Your task to perform on an android device: Is it going to rain tomorrow? Image 0: 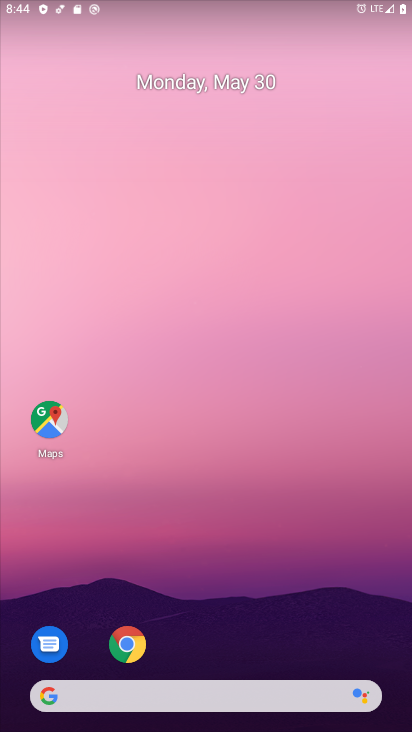
Step 0: drag from (3, 188) to (375, 216)
Your task to perform on an android device: Is it going to rain tomorrow? Image 1: 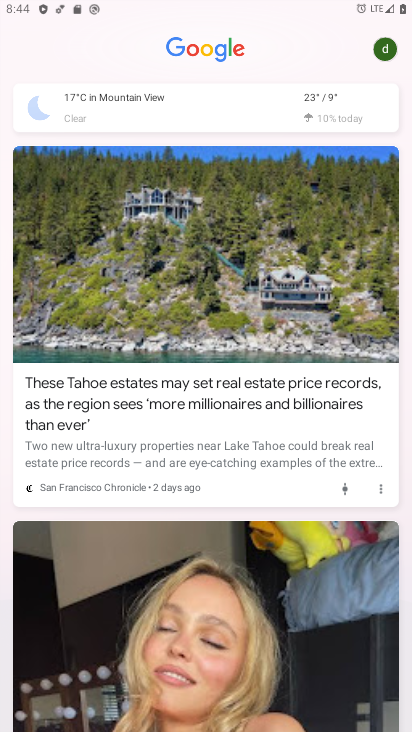
Step 1: drag from (312, 478) to (284, 232)
Your task to perform on an android device: Is it going to rain tomorrow? Image 2: 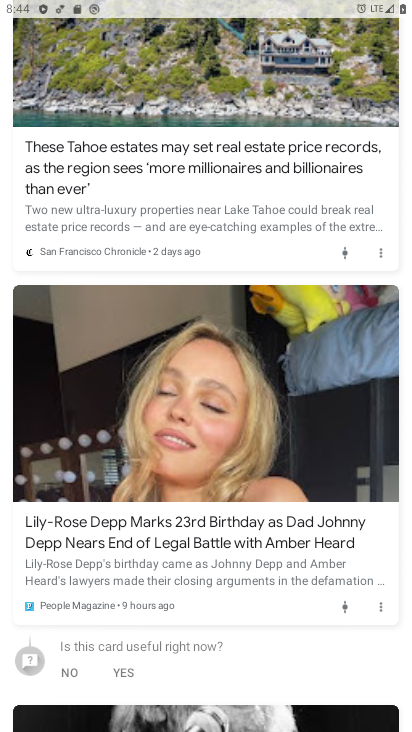
Step 2: drag from (284, 232) to (284, 589)
Your task to perform on an android device: Is it going to rain tomorrow? Image 3: 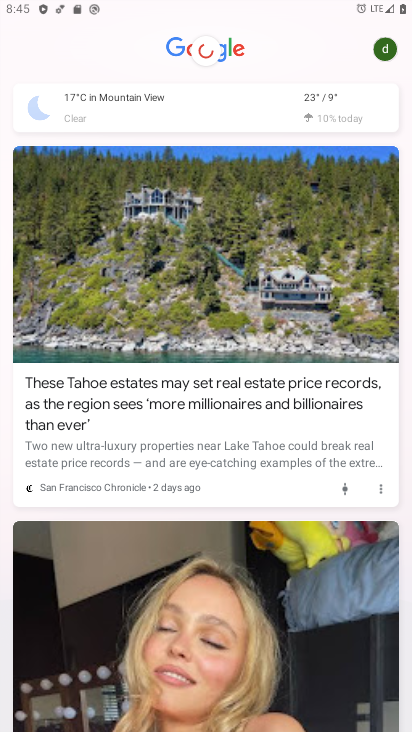
Step 3: click (329, 105)
Your task to perform on an android device: Is it going to rain tomorrow? Image 4: 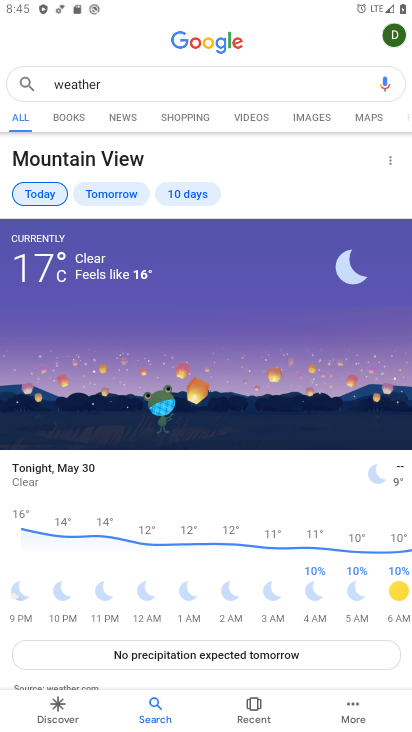
Step 4: click (114, 193)
Your task to perform on an android device: Is it going to rain tomorrow? Image 5: 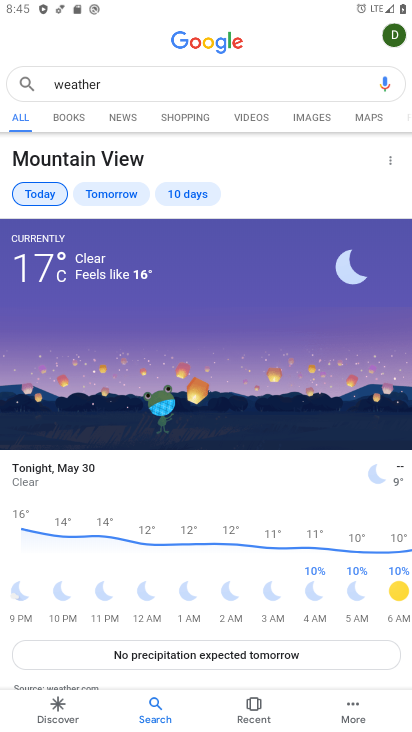
Step 5: click (114, 193)
Your task to perform on an android device: Is it going to rain tomorrow? Image 6: 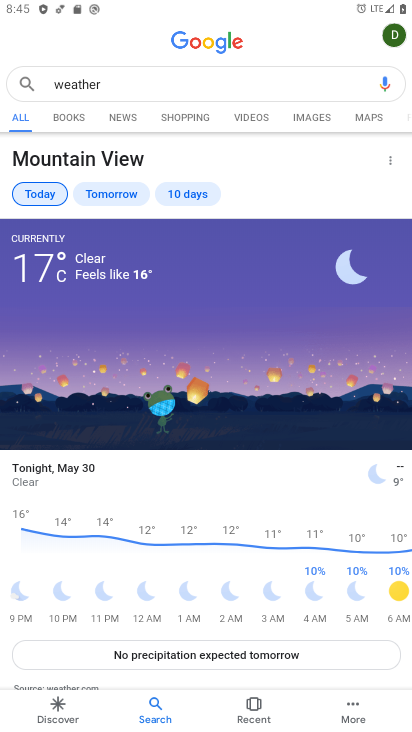
Step 6: click (114, 193)
Your task to perform on an android device: Is it going to rain tomorrow? Image 7: 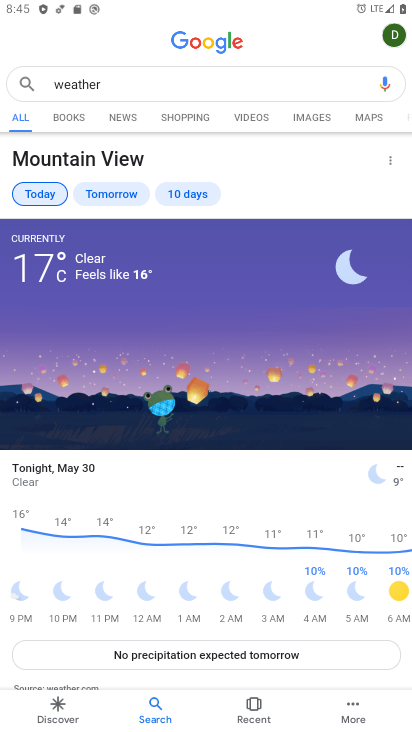
Step 7: click (191, 190)
Your task to perform on an android device: Is it going to rain tomorrow? Image 8: 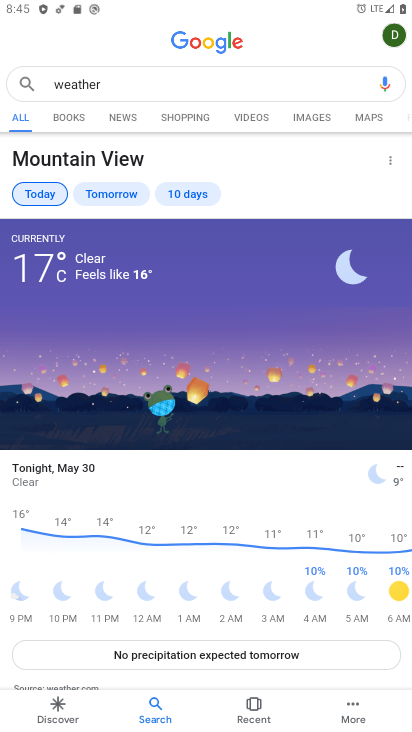
Step 8: drag from (249, 517) to (225, 192)
Your task to perform on an android device: Is it going to rain tomorrow? Image 9: 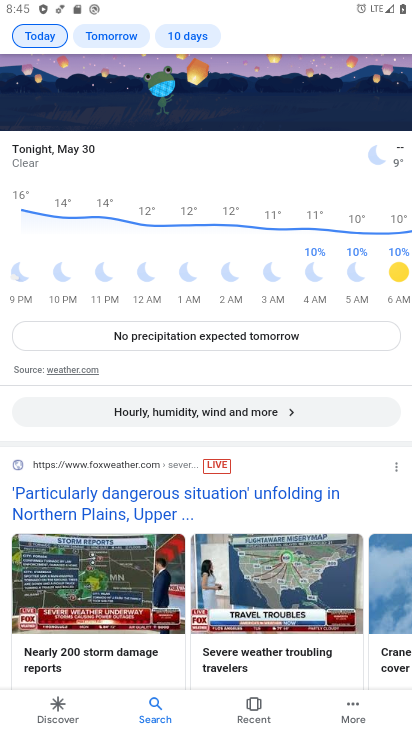
Step 9: drag from (226, 194) to (225, 504)
Your task to perform on an android device: Is it going to rain tomorrow? Image 10: 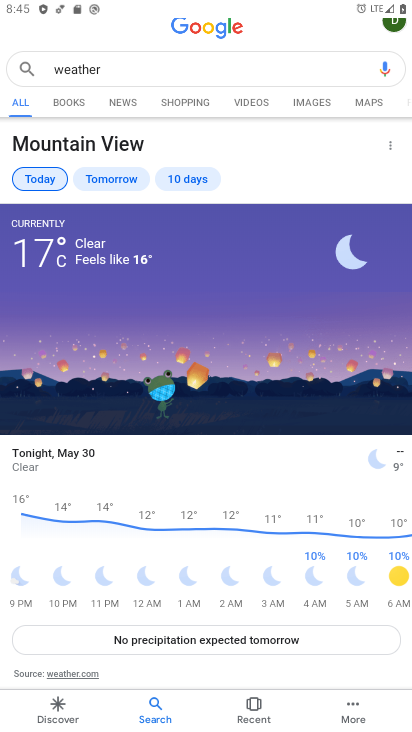
Step 10: click (112, 179)
Your task to perform on an android device: Is it going to rain tomorrow? Image 11: 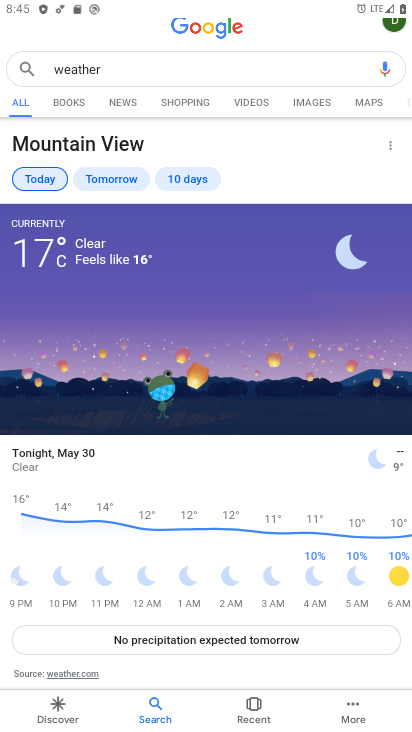
Step 11: click (112, 179)
Your task to perform on an android device: Is it going to rain tomorrow? Image 12: 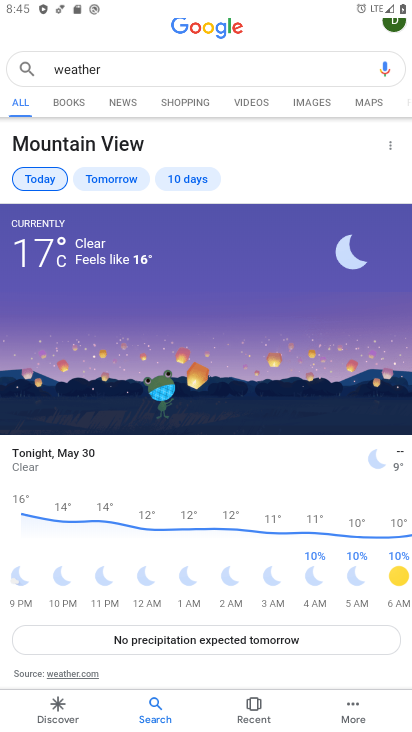
Step 12: click (112, 179)
Your task to perform on an android device: Is it going to rain tomorrow? Image 13: 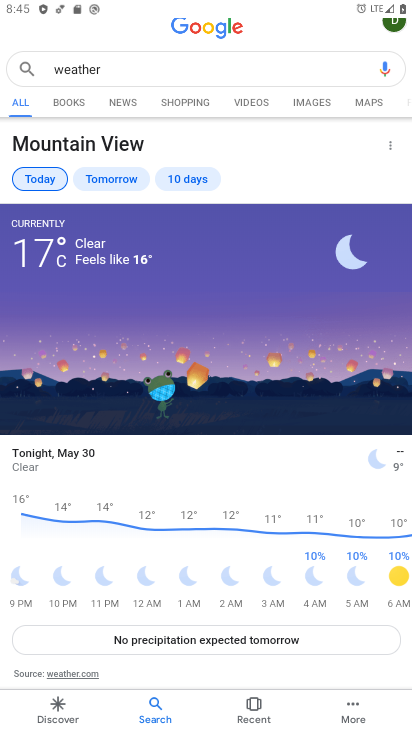
Step 13: click (187, 177)
Your task to perform on an android device: Is it going to rain tomorrow? Image 14: 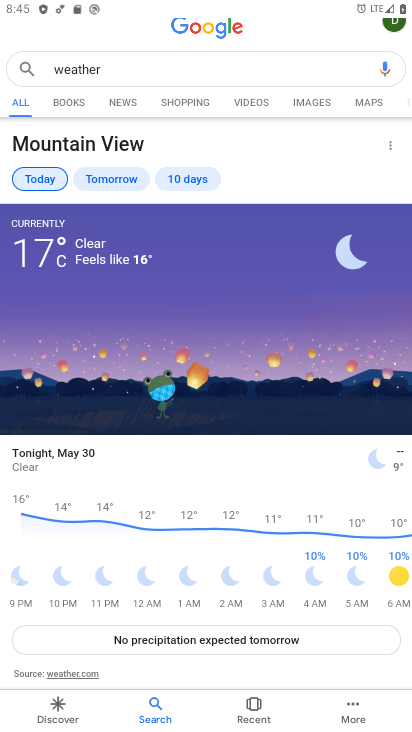
Step 14: click (118, 181)
Your task to perform on an android device: Is it going to rain tomorrow? Image 15: 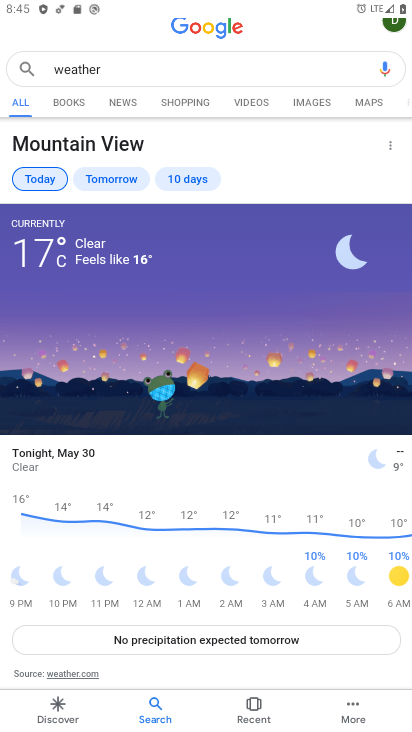
Step 15: click (118, 181)
Your task to perform on an android device: Is it going to rain tomorrow? Image 16: 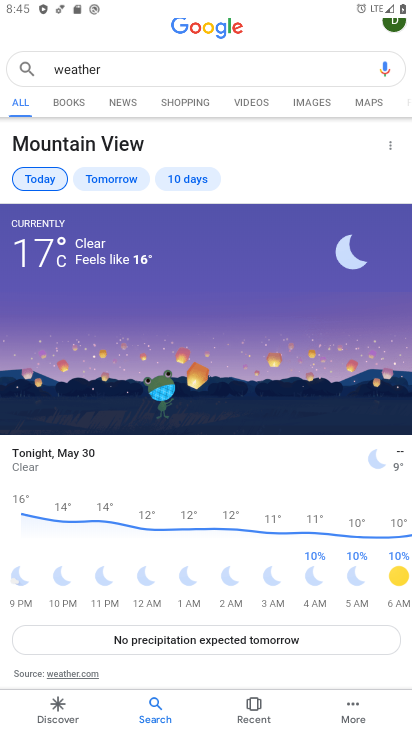
Step 16: task complete